Your task to perform on an android device: open device folders in google photos Image 0: 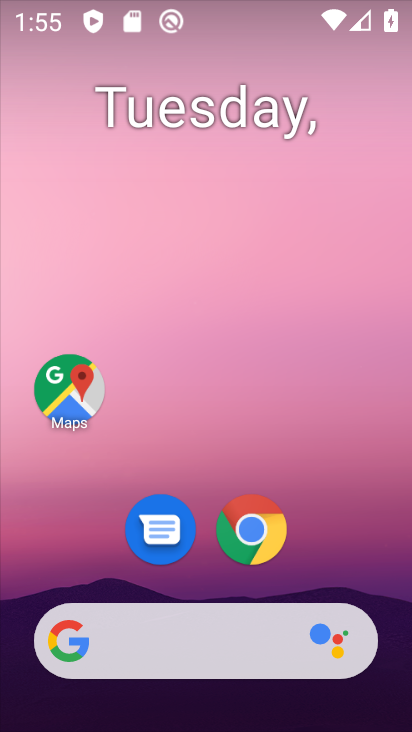
Step 0: drag from (390, 550) to (293, 69)
Your task to perform on an android device: open device folders in google photos Image 1: 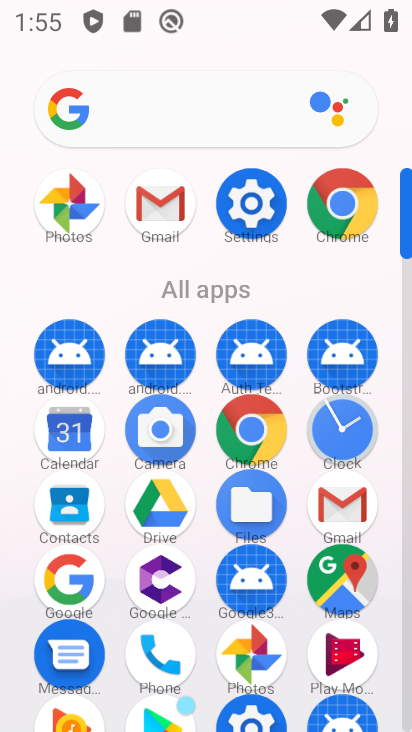
Step 1: click (253, 656)
Your task to perform on an android device: open device folders in google photos Image 2: 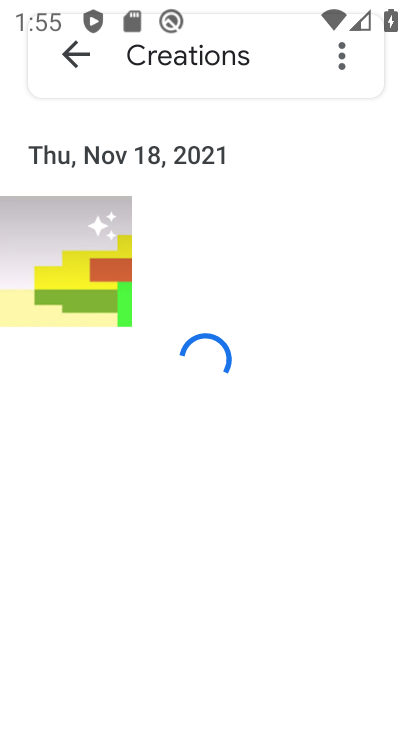
Step 2: click (84, 61)
Your task to perform on an android device: open device folders in google photos Image 3: 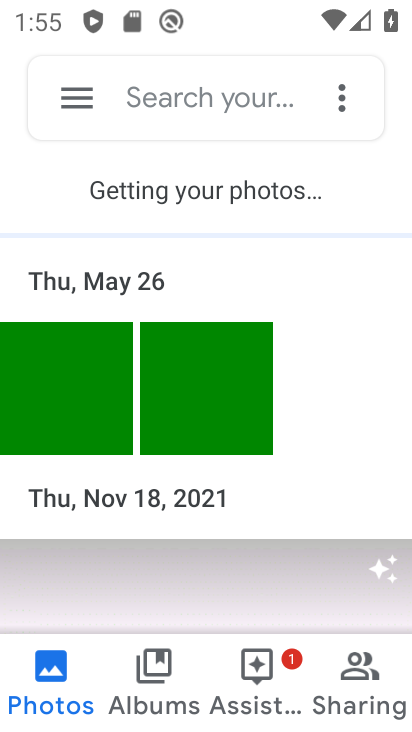
Step 3: click (81, 95)
Your task to perform on an android device: open device folders in google photos Image 4: 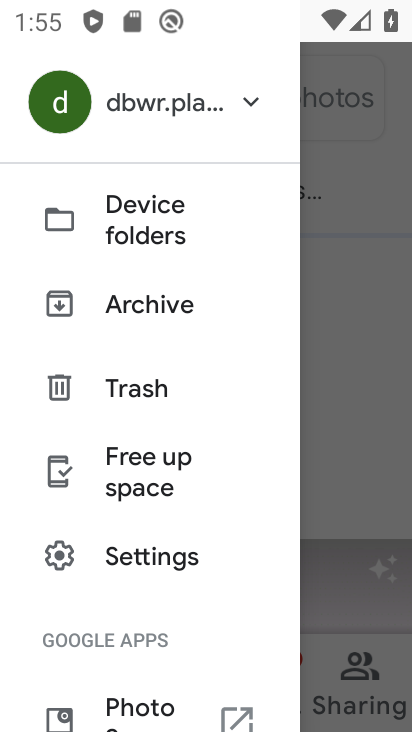
Step 4: click (140, 236)
Your task to perform on an android device: open device folders in google photos Image 5: 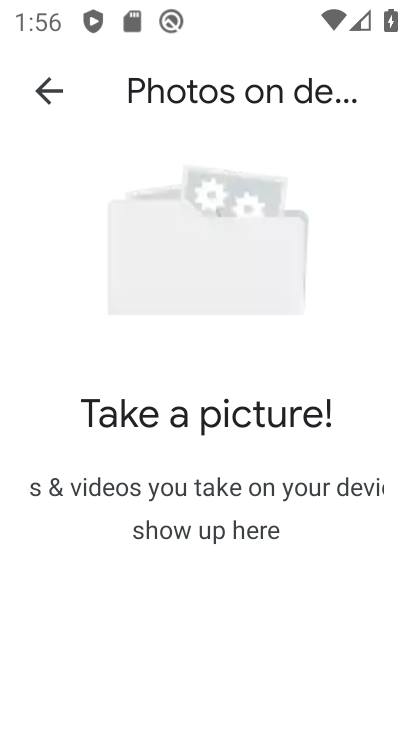
Step 5: task complete